Your task to perform on an android device: Open internet settings Image 0: 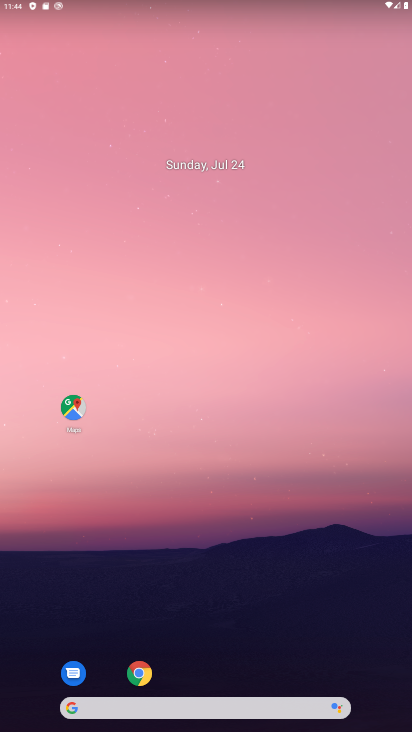
Step 0: drag from (234, 697) to (224, 179)
Your task to perform on an android device: Open internet settings Image 1: 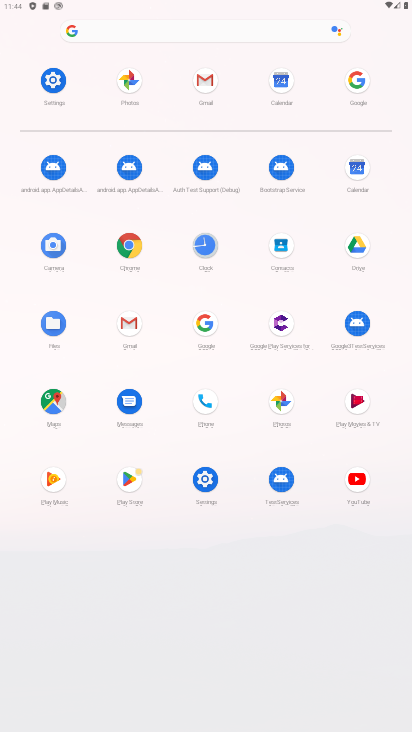
Step 1: click (205, 476)
Your task to perform on an android device: Open internet settings Image 2: 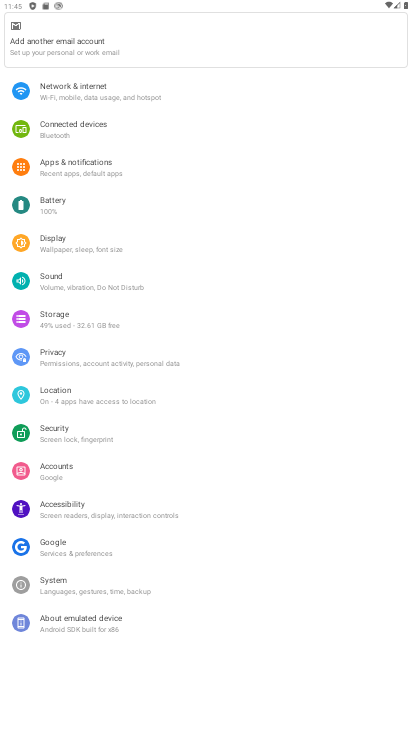
Step 2: click (111, 94)
Your task to perform on an android device: Open internet settings Image 3: 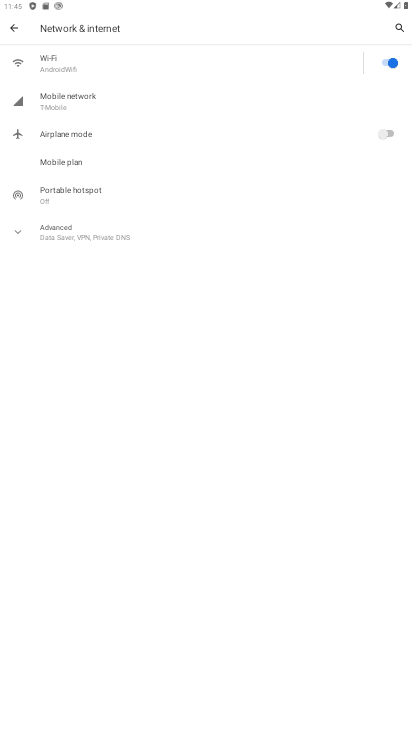
Step 3: click (74, 69)
Your task to perform on an android device: Open internet settings Image 4: 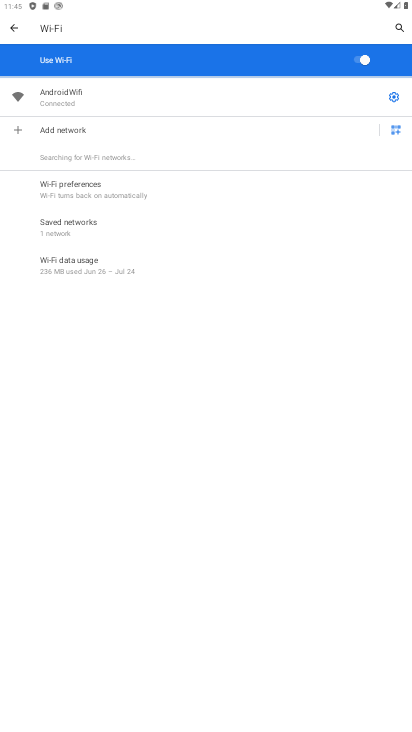
Step 4: click (393, 95)
Your task to perform on an android device: Open internet settings Image 5: 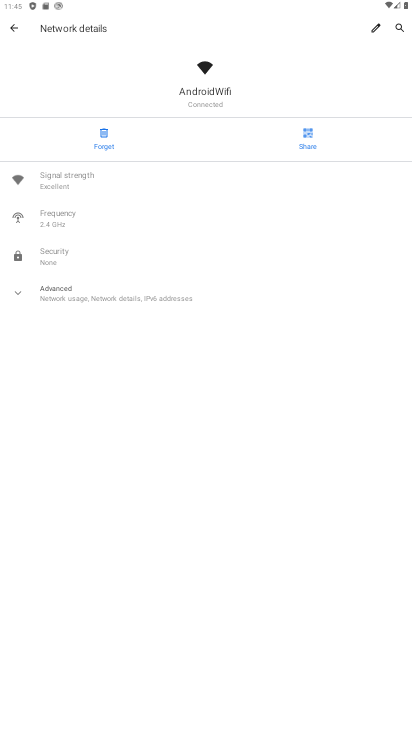
Step 5: task complete